Your task to perform on an android device: allow notifications from all sites in the chrome app Image 0: 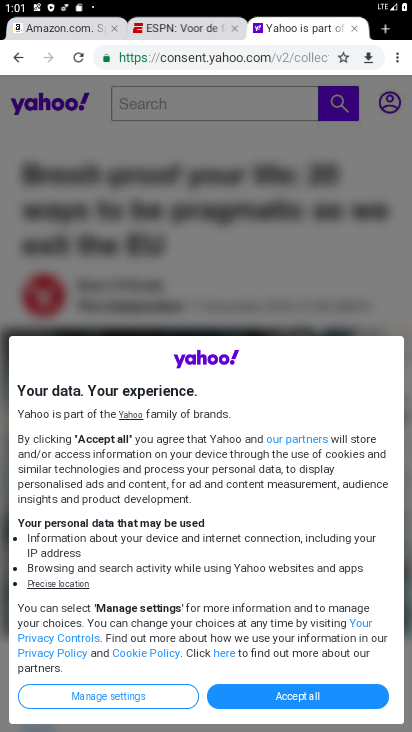
Step 0: press home button
Your task to perform on an android device: allow notifications from all sites in the chrome app Image 1: 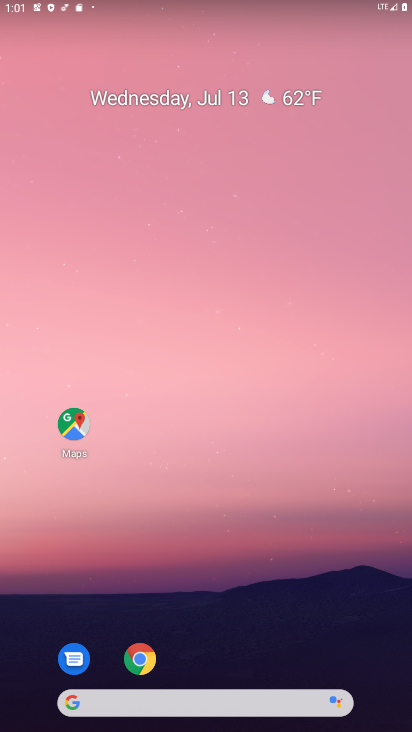
Step 1: drag from (208, 679) to (209, 173)
Your task to perform on an android device: allow notifications from all sites in the chrome app Image 2: 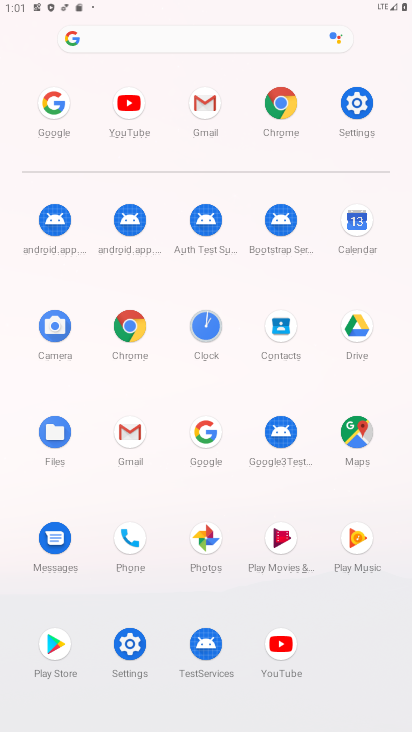
Step 2: click (282, 100)
Your task to perform on an android device: allow notifications from all sites in the chrome app Image 3: 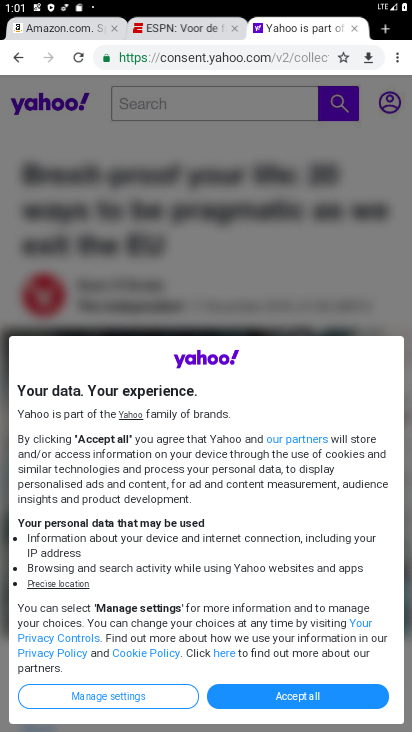
Step 3: click (398, 58)
Your task to perform on an android device: allow notifications from all sites in the chrome app Image 4: 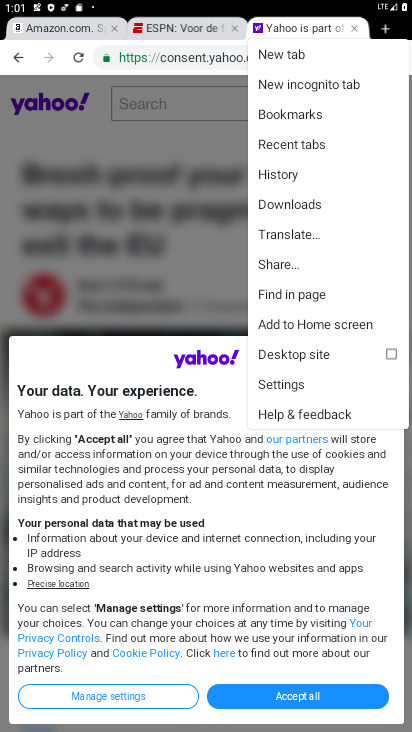
Step 4: click (284, 383)
Your task to perform on an android device: allow notifications from all sites in the chrome app Image 5: 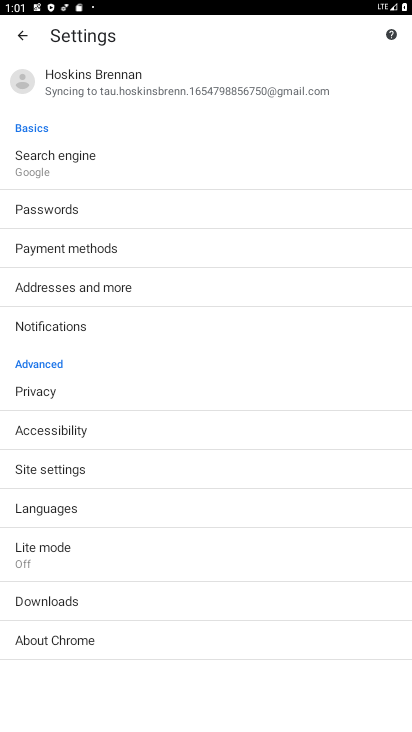
Step 5: click (55, 322)
Your task to perform on an android device: allow notifications from all sites in the chrome app Image 6: 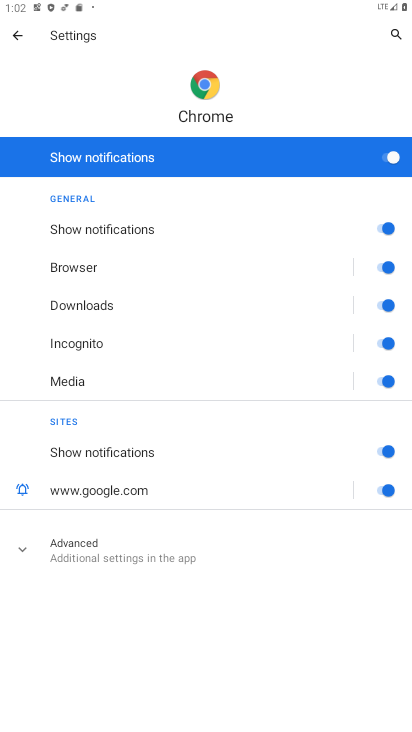
Step 6: task complete